Your task to perform on an android device: Open network settings Image 0: 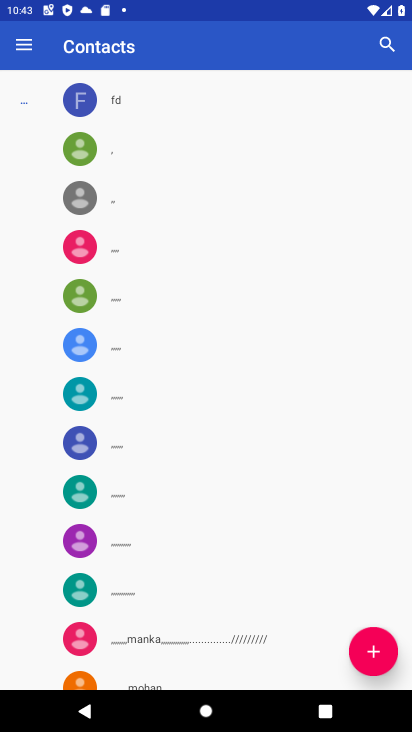
Step 0: press home button
Your task to perform on an android device: Open network settings Image 1: 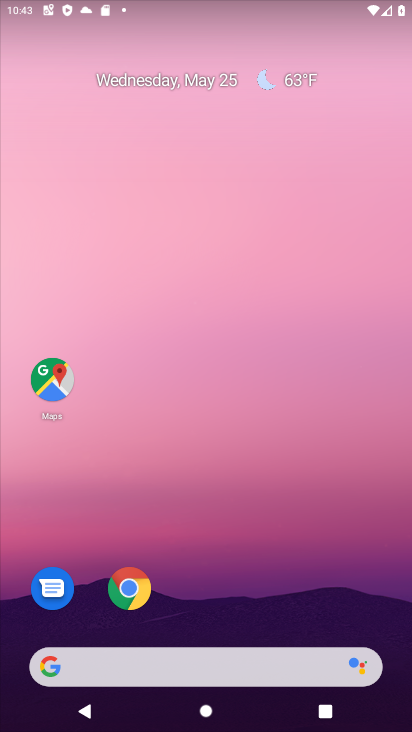
Step 1: drag from (299, 603) to (338, 4)
Your task to perform on an android device: Open network settings Image 2: 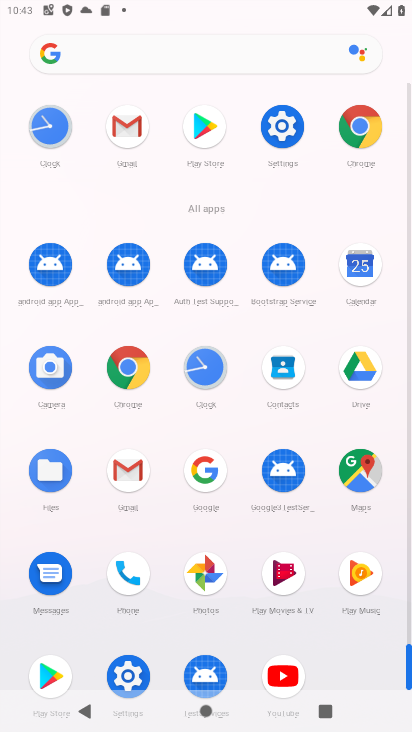
Step 2: click (141, 673)
Your task to perform on an android device: Open network settings Image 3: 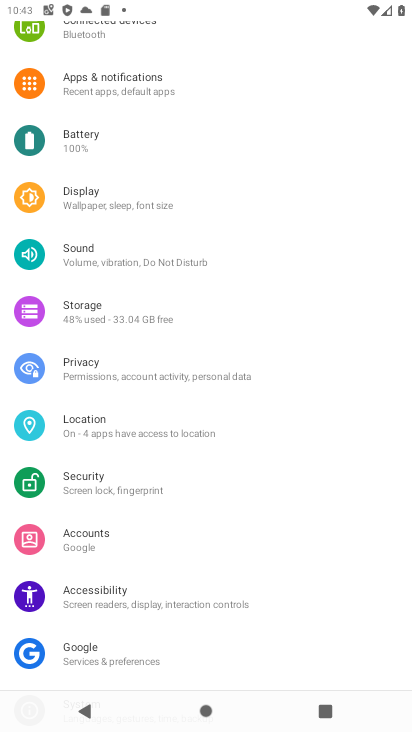
Step 3: drag from (172, 169) to (144, 657)
Your task to perform on an android device: Open network settings Image 4: 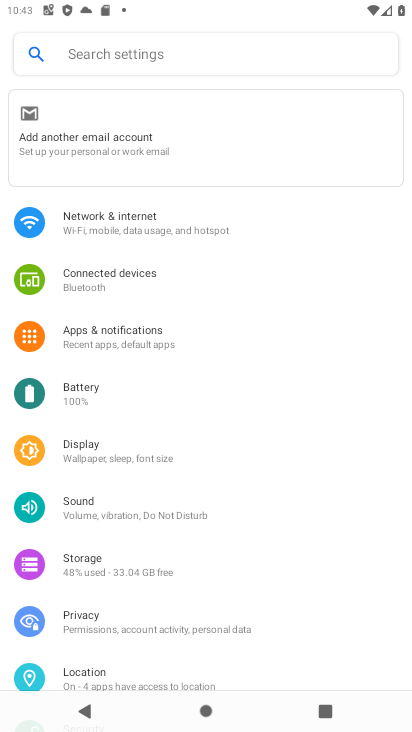
Step 4: click (135, 219)
Your task to perform on an android device: Open network settings Image 5: 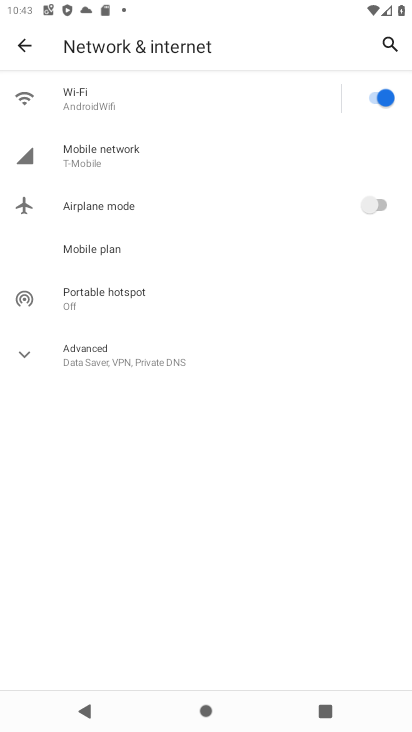
Step 5: task complete